Your task to perform on an android device: change notifications settings Image 0: 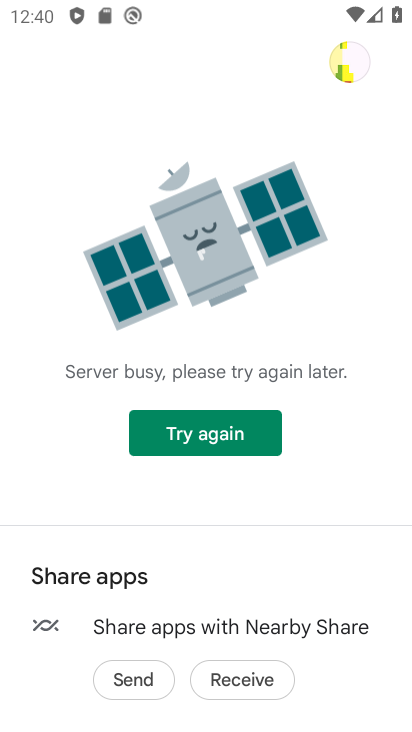
Step 0: press home button
Your task to perform on an android device: change notifications settings Image 1: 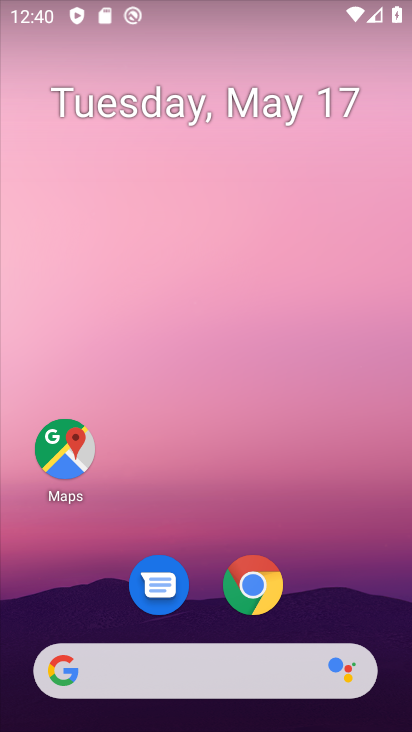
Step 1: drag from (310, 583) to (266, 70)
Your task to perform on an android device: change notifications settings Image 2: 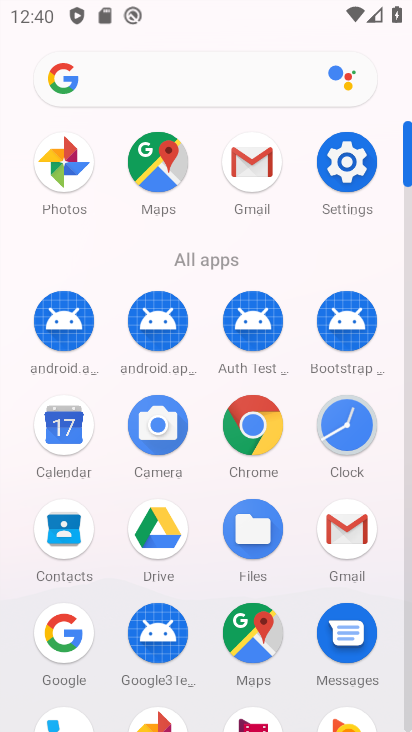
Step 2: click (346, 166)
Your task to perform on an android device: change notifications settings Image 3: 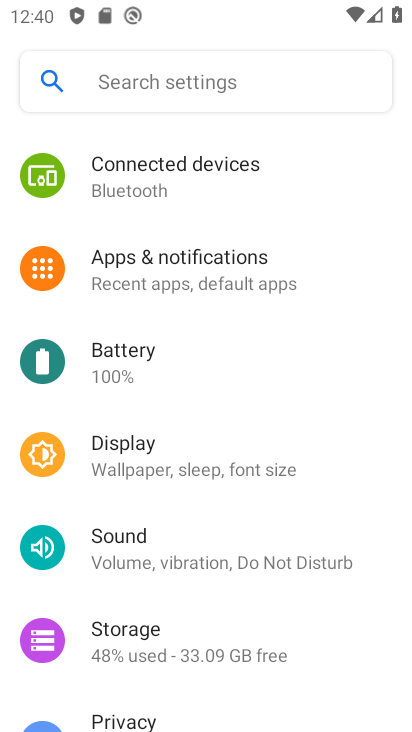
Step 3: click (291, 265)
Your task to perform on an android device: change notifications settings Image 4: 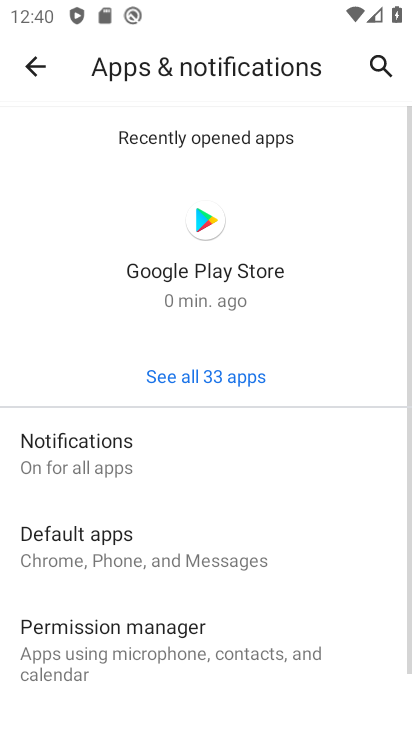
Step 4: click (194, 454)
Your task to perform on an android device: change notifications settings Image 5: 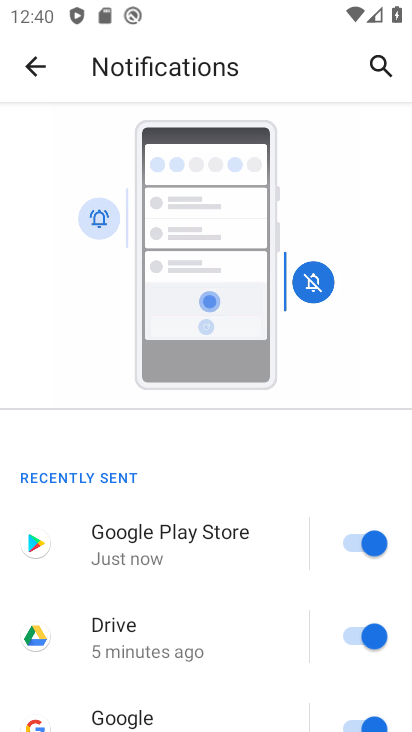
Step 5: drag from (213, 618) to (213, 471)
Your task to perform on an android device: change notifications settings Image 6: 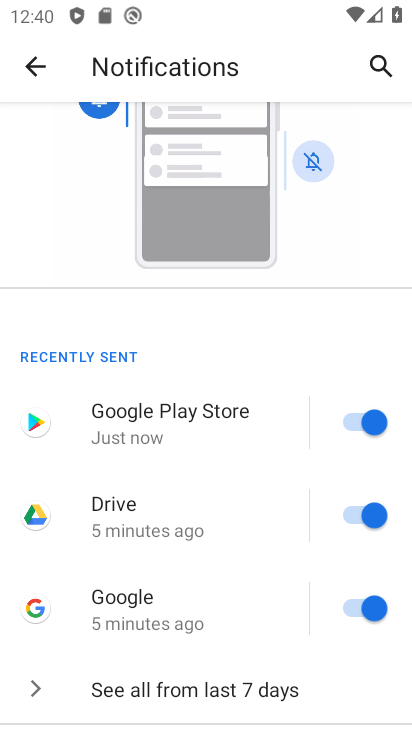
Step 6: click (174, 681)
Your task to perform on an android device: change notifications settings Image 7: 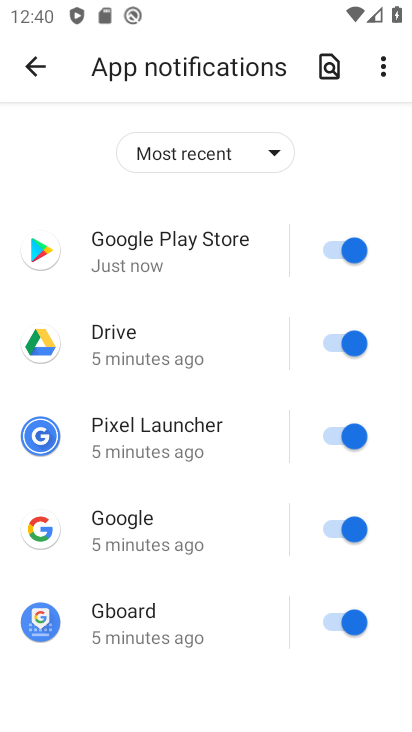
Step 7: drag from (215, 410) to (225, 265)
Your task to perform on an android device: change notifications settings Image 8: 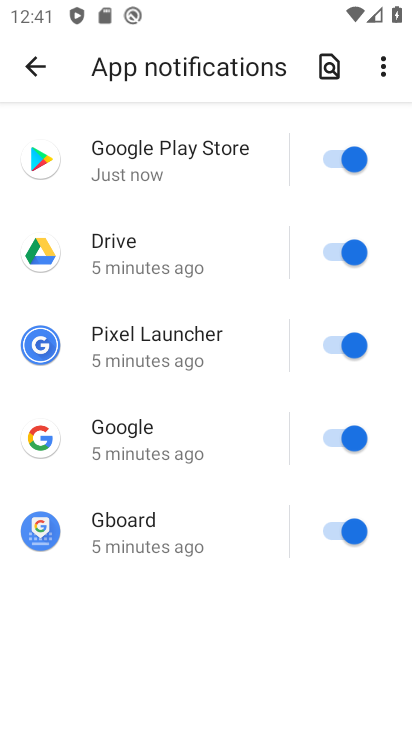
Step 8: drag from (259, 223) to (249, 317)
Your task to perform on an android device: change notifications settings Image 9: 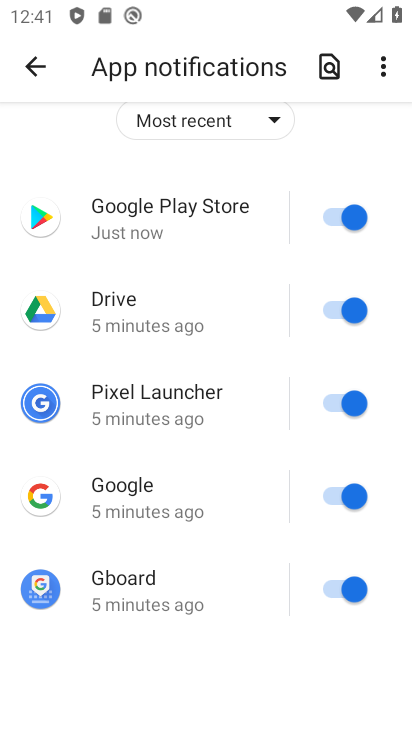
Step 9: click (341, 210)
Your task to perform on an android device: change notifications settings Image 10: 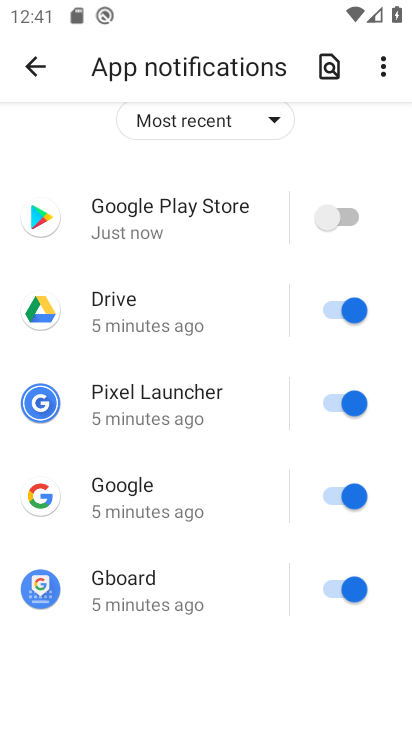
Step 10: click (348, 305)
Your task to perform on an android device: change notifications settings Image 11: 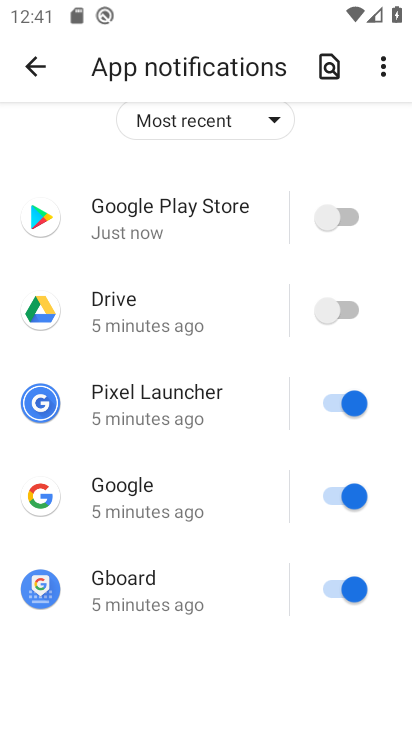
Step 11: click (345, 391)
Your task to perform on an android device: change notifications settings Image 12: 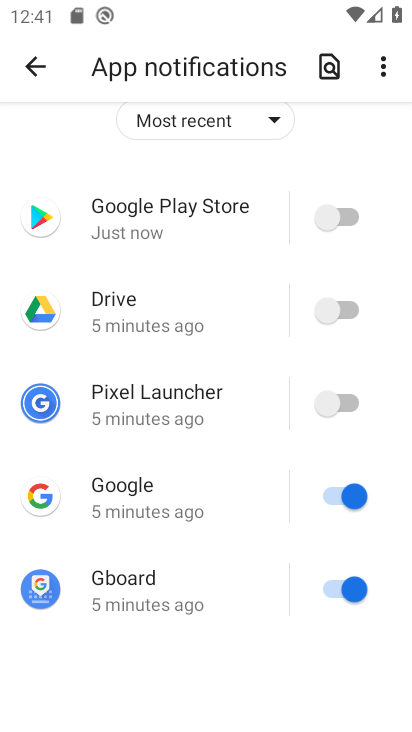
Step 12: click (338, 493)
Your task to perform on an android device: change notifications settings Image 13: 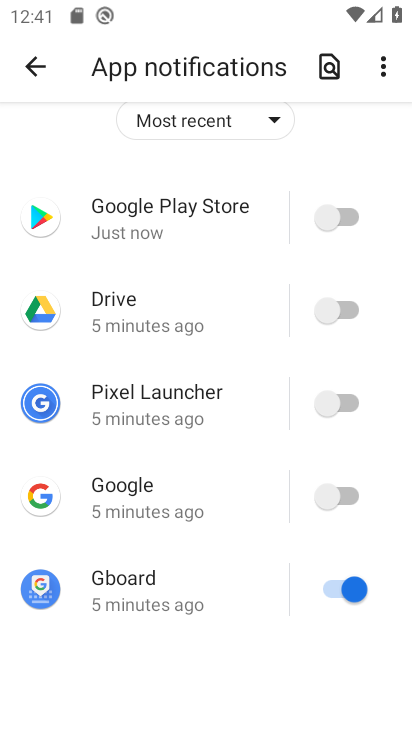
Step 13: click (340, 584)
Your task to perform on an android device: change notifications settings Image 14: 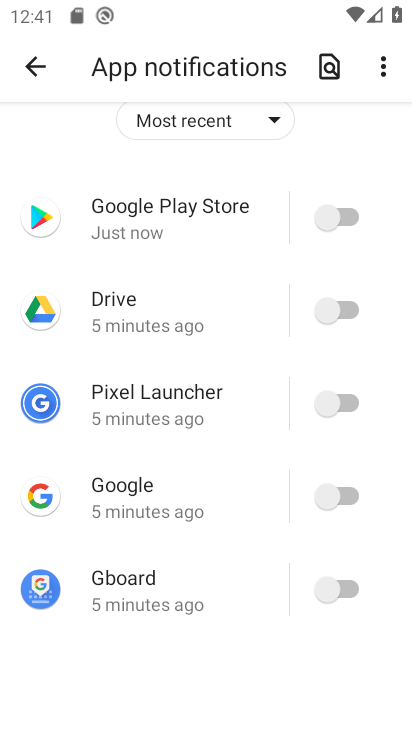
Step 14: task complete